Your task to perform on an android device: set the stopwatch Image 0: 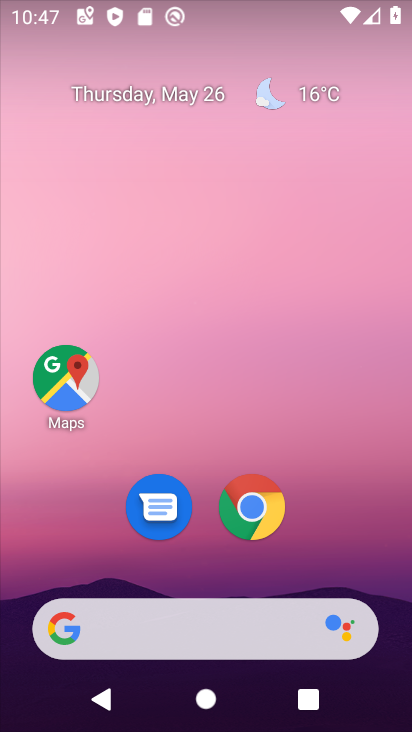
Step 0: drag from (222, 591) to (254, 182)
Your task to perform on an android device: set the stopwatch Image 1: 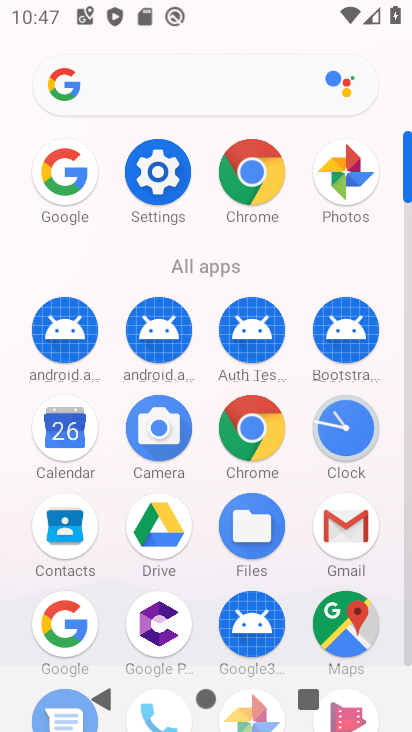
Step 1: click (345, 446)
Your task to perform on an android device: set the stopwatch Image 2: 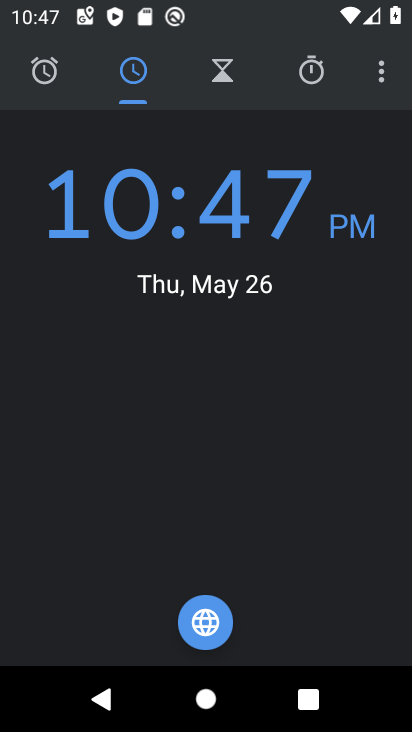
Step 2: click (314, 75)
Your task to perform on an android device: set the stopwatch Image 3: 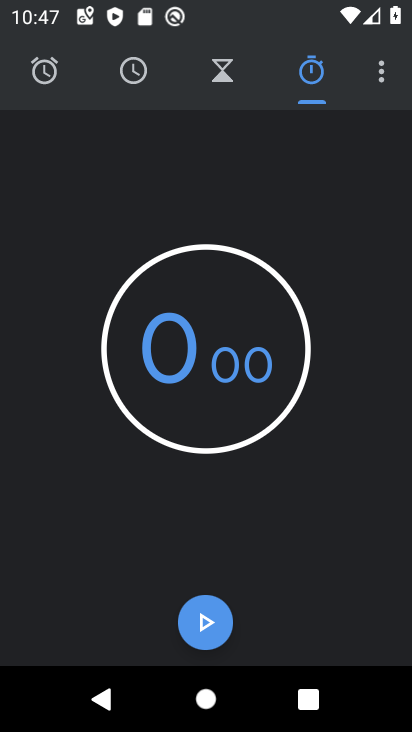
Step 3: click (210, 624)
Your task to perform on an android device: set the stopwatch Image 4: 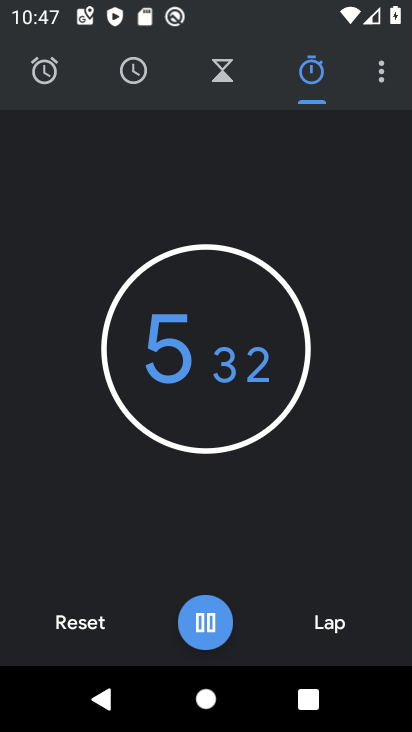
Step 4: click (203, 625)
Your task to perform on an android device: set the stopwatch Image 5: 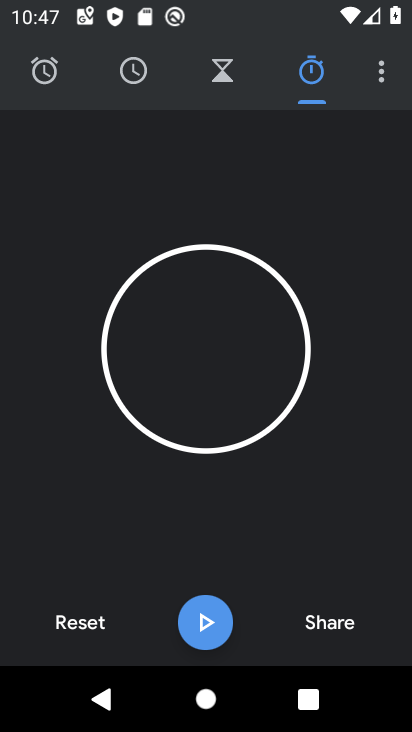
Step 5: task complete